Your task to perform on an android device: Open Yahoo.com Image 0: 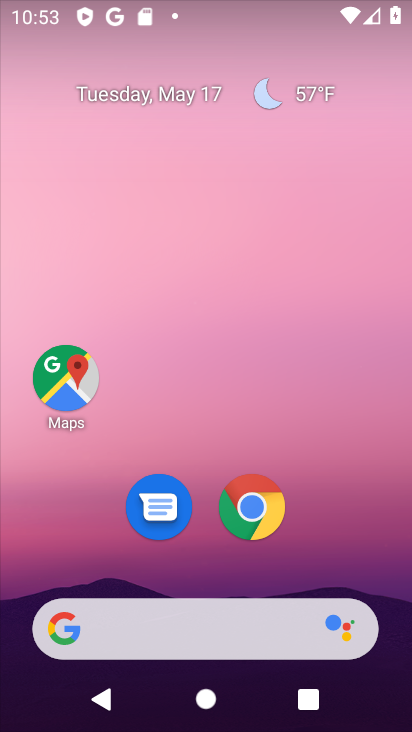
Step 0: click (251, 521)
Your task to perform on an android device: Open Yahoo.com Image 1: 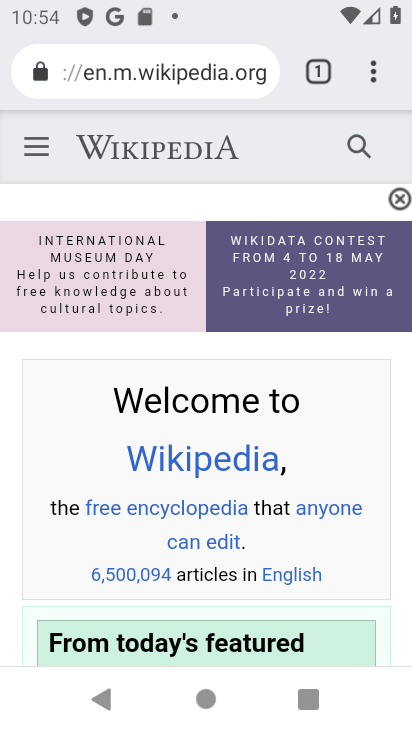
Step 1: drag from (389, 79) to (357, 131)
Your task to perform on an android device: Open Yahoo.com Image 2: 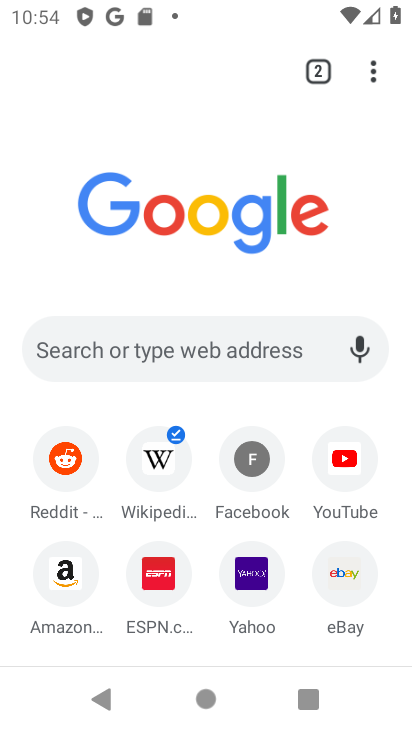
Step 2: click (248, 568)
Your task to perform on an android device: Open Yahoo.com Image 3: 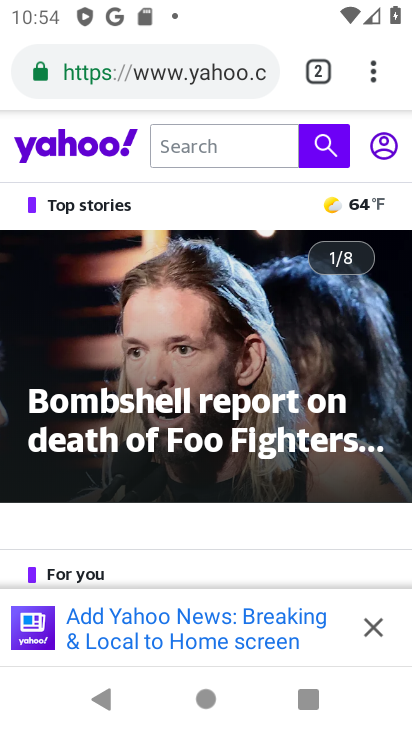
Step 3: task complete